Your task to perform on an android device: Open Google Maps and go to "Timeline" Image 0: 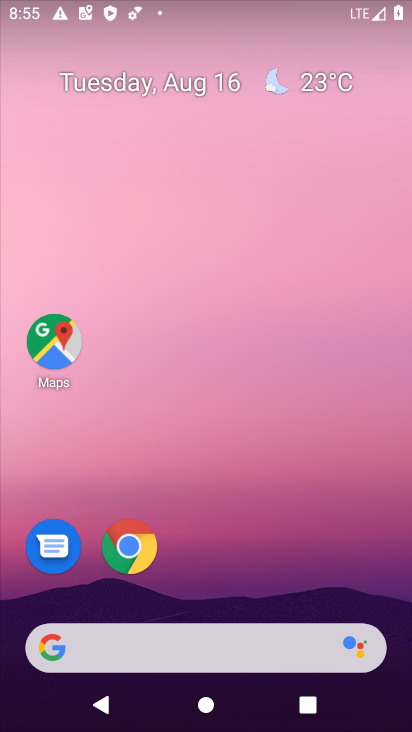
Step 0: click (62, 334)
Your task to perform on an android device: Open Google Maps and go to "Timeline" Image 1: 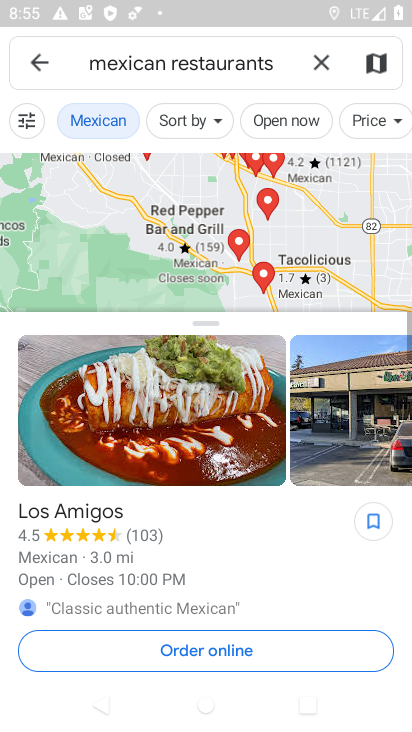
Step 1: click (35, 57)
Your task to perform on an android device: Open Google Maps and go to "Timeline" Image 2: 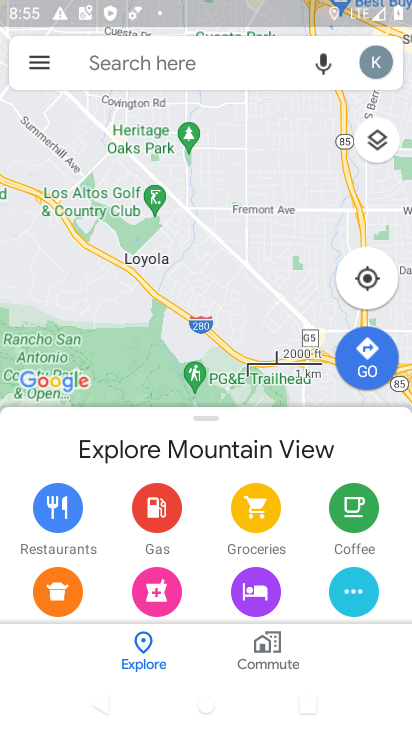
Step 2: click (37, 57)
Your task to perform on an android device: Open Google Maps and go to "Timeline" Image 3: 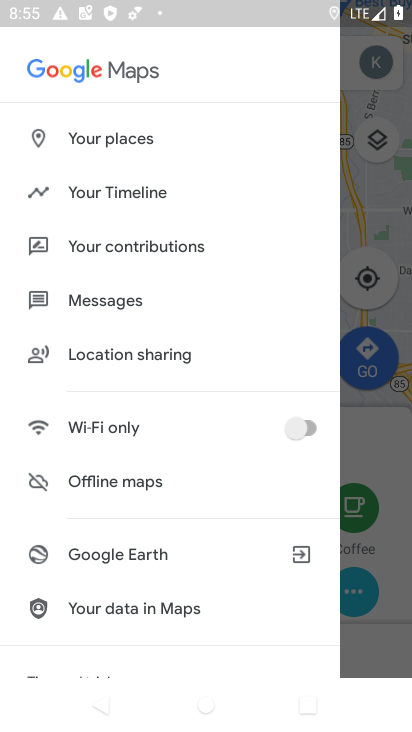
Step 3: click (90, 189)
Your task to perform on an android device: Open Google Maps and go to "Timeline" Image 4: 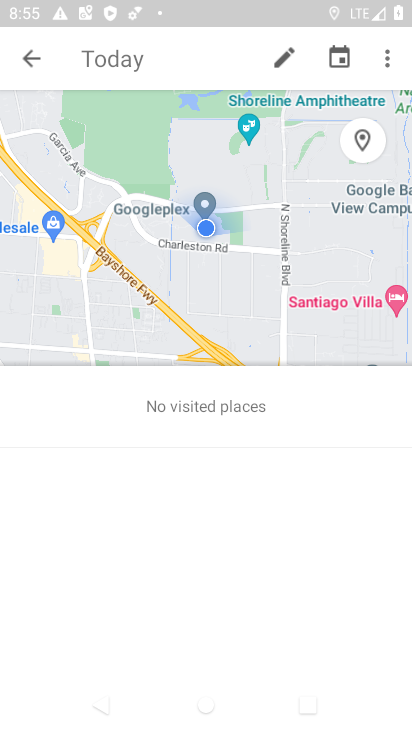
Step 4: task complete